Your task to perform on an android device: Open Youtube and go to the subscriptions tab Image 0: 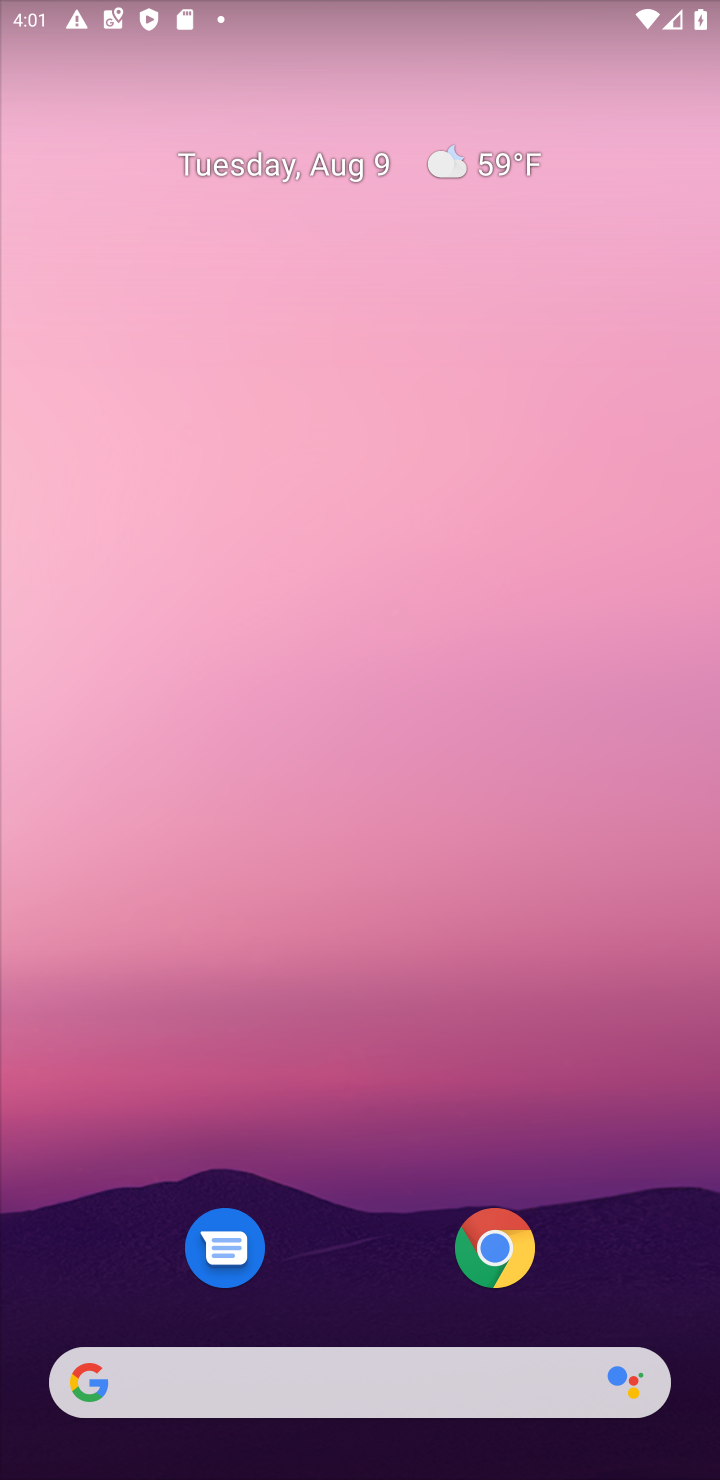
Step 0: drag from (577, 844) to (594, 284)
Your task to perform on an android device: Open Youtube and go to the subscriptions tab Image 1: 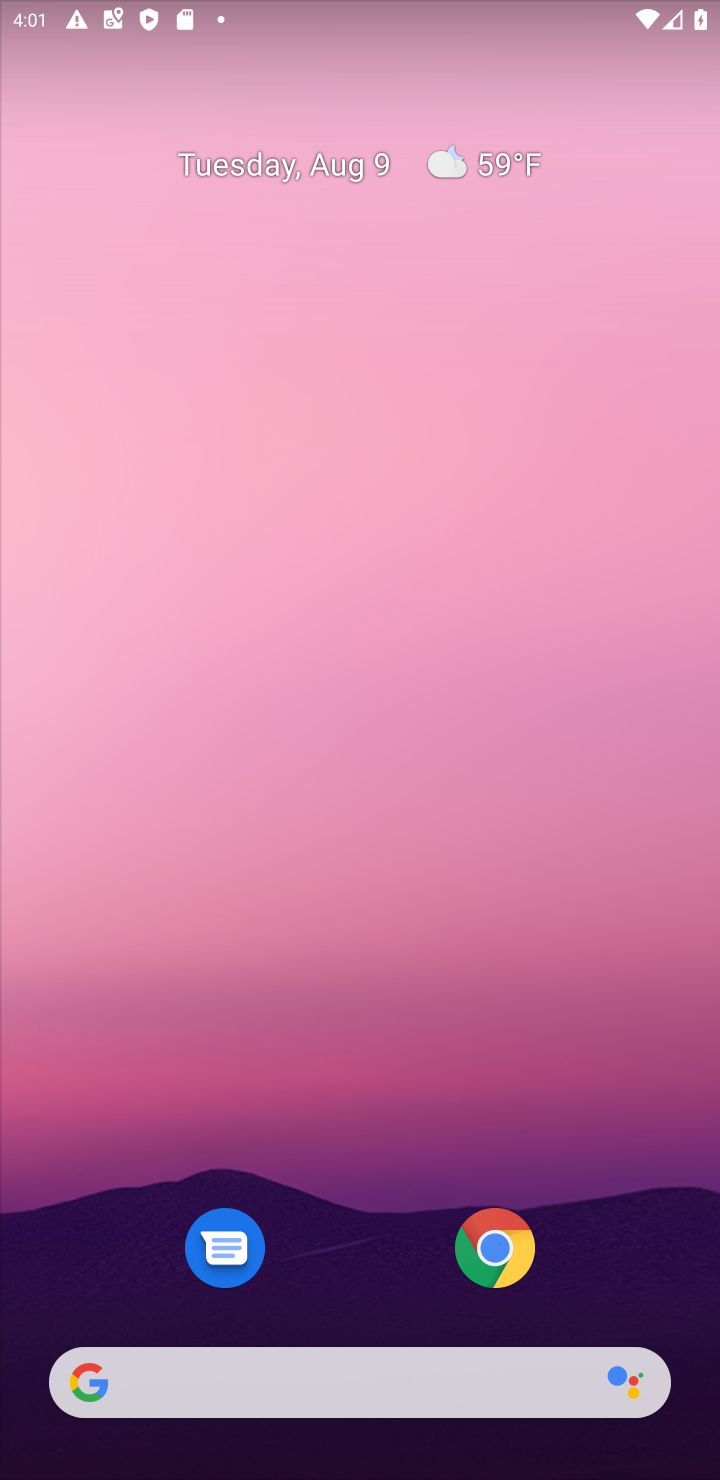
Step 1: drag from (341, 1209) to (285, 95)
Your task to perform on an android device: Open Youtube and go to the subscriptions tab Image 2: 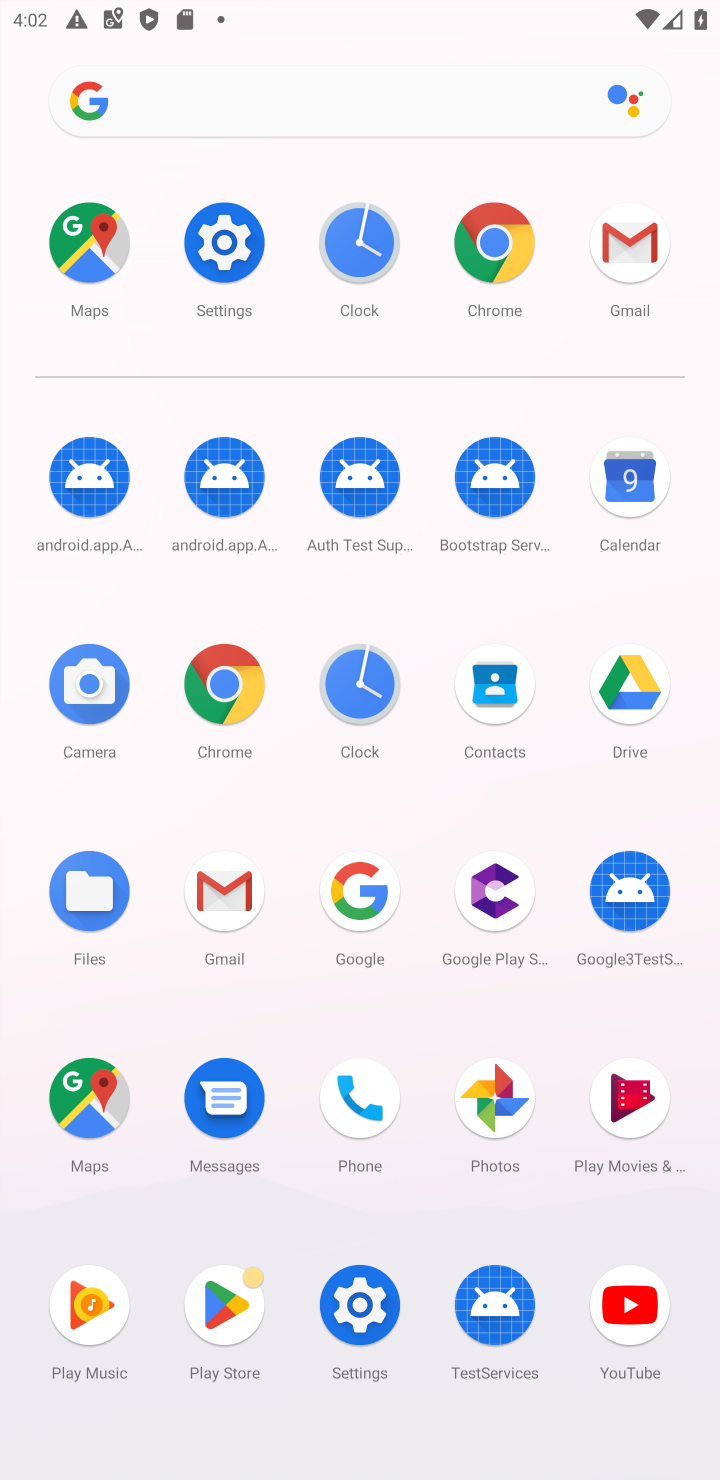
Step 2: click (619, 1293)
Your task to perform on an android device: Open Youtube and go to the subscriptions tab Image 3: 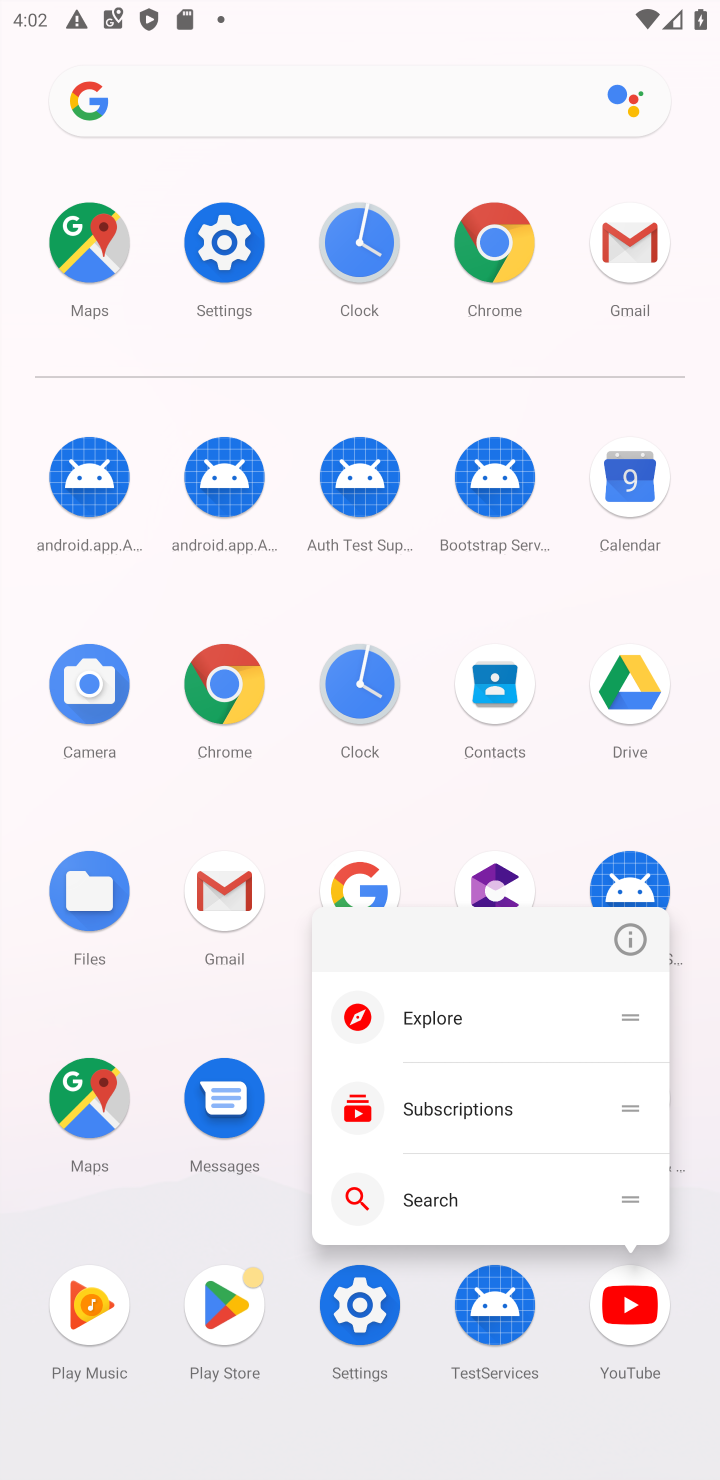
Step 3: click (619, 1293)
Your task to perform on an android device: Open Youtube and go to the subscriptions tab Image 4: 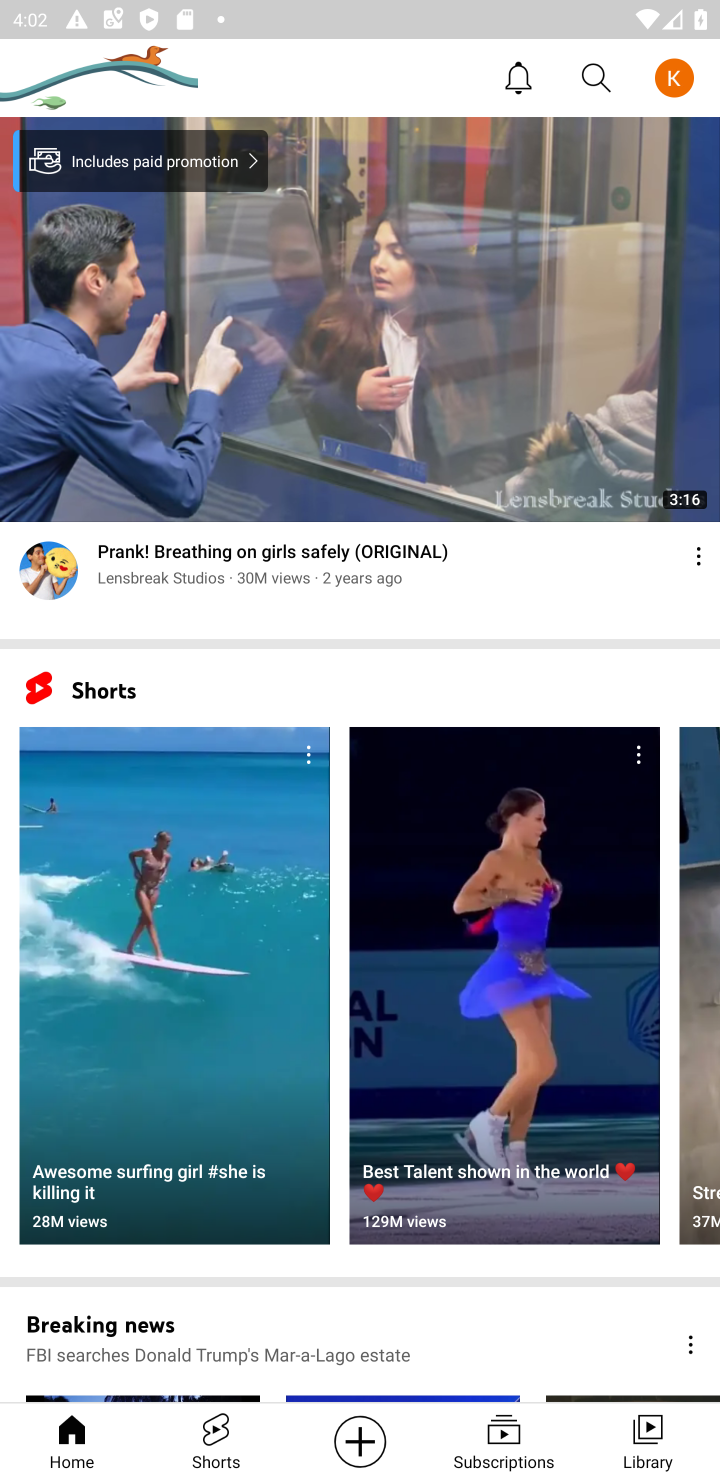
Step 4: click (536, 1430)
Your task to perform on an android device: Open Youtube and go to the subscriptions tab Image 5: 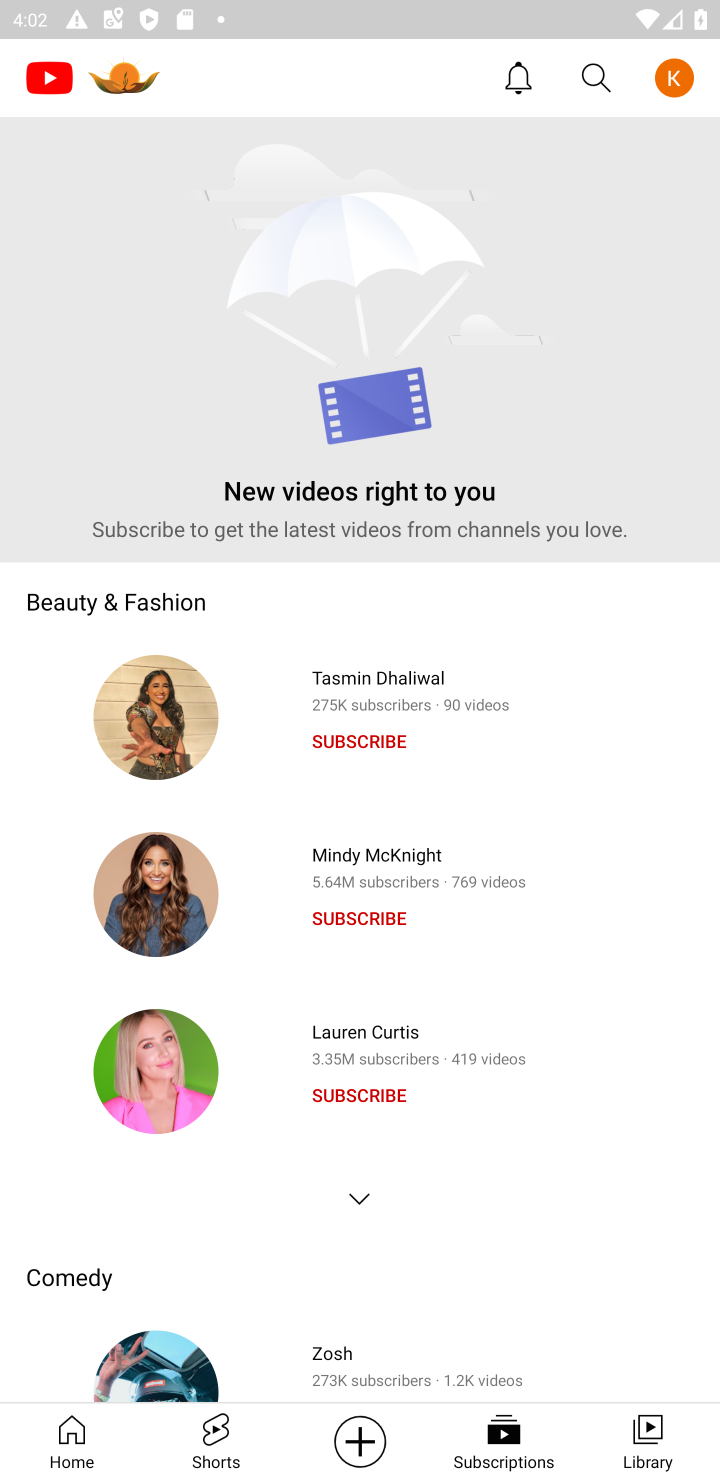
Step 5: task complete